Your task to perform on an android device: Open Google Chrome and open the bookmarks view Image 0: 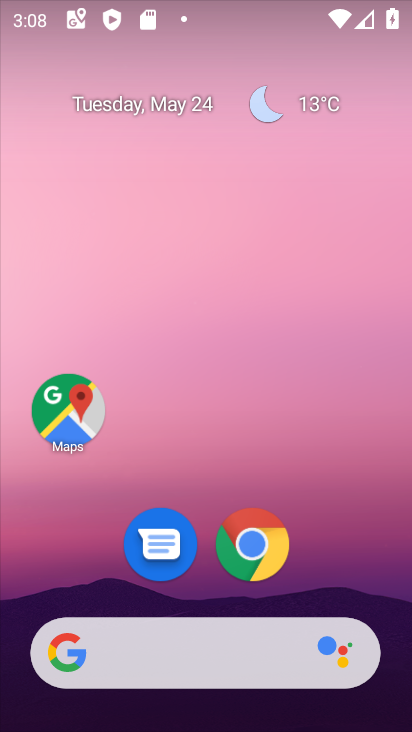
Step 0: drag from (365, 525) to (22, 260)
Your task to perform on an android device: Open Google Chrome and open the bookmarks view Image 1: 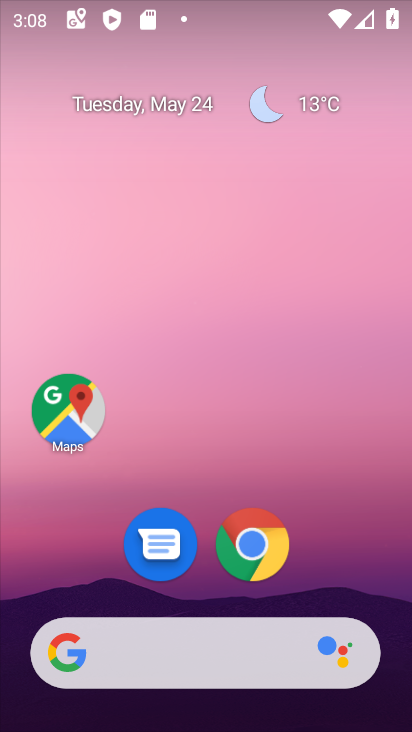
Step 1: drag from (349, 567) to (314, 1)
Your task to perform on an android device: Open Google Chrome and open the bookmarks view Image 2: 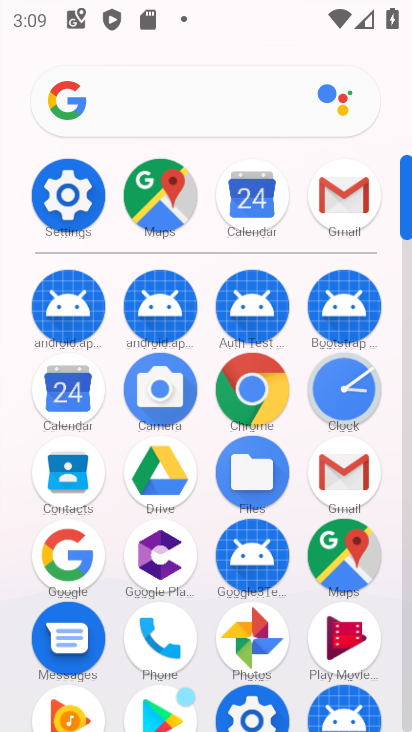
Step 2: click (266, 396)
Your task to perform on an android device: Open Google Chrome and open the bookmarks view Image 3: 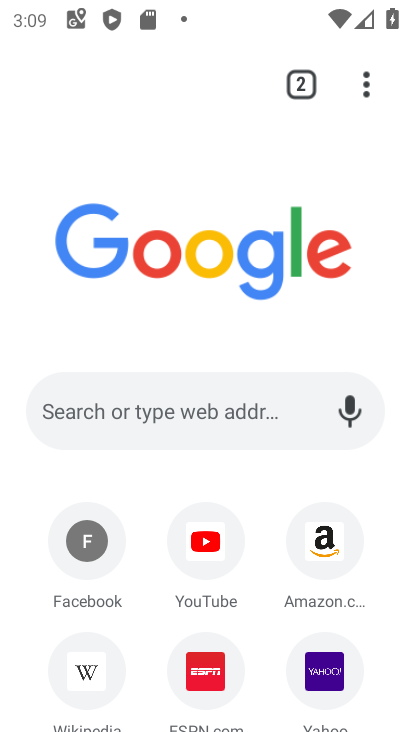
Step 3: task complete